Your task to perform on an android device: Open Google Maps Image 0: 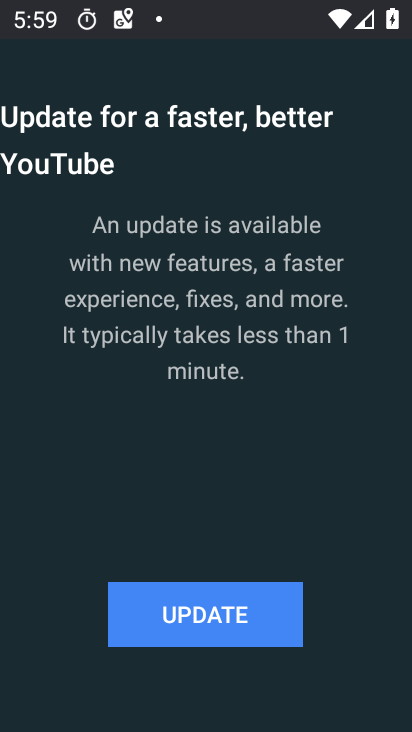
Step 0: press home button
Your task to perform on an android device: Open Google Maps Image 1: 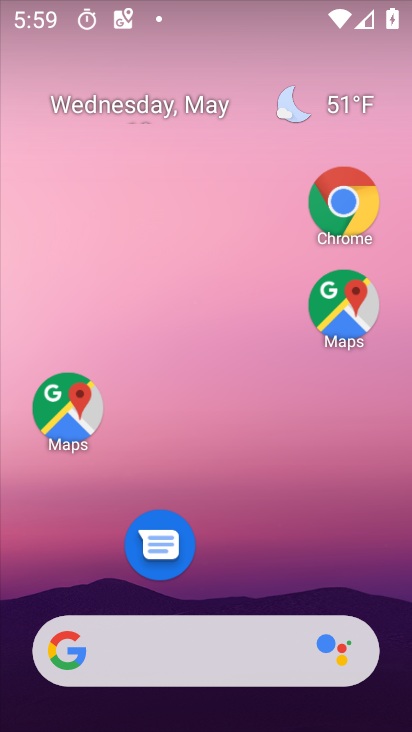
Step 1: click (54, 410)
Your task to perform on an android device: Open Google Maps Image 2: 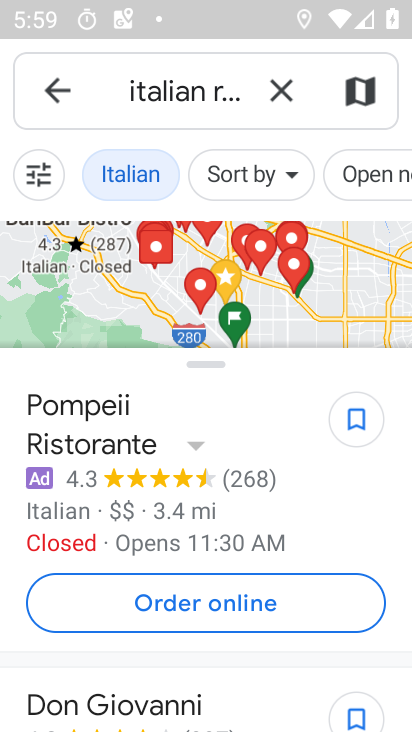
Step 2: task complete